Your task to perform on an android device: remove spam from my inbox in the gmail app Image 0: 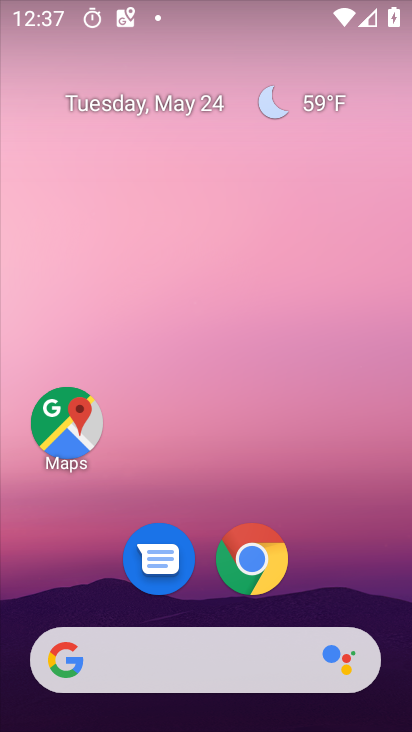
Step 0: drag from (394, 714) to (367, 151)
Your task to perform on an android device: remove spam from my inbox in the gmail app Image 1: 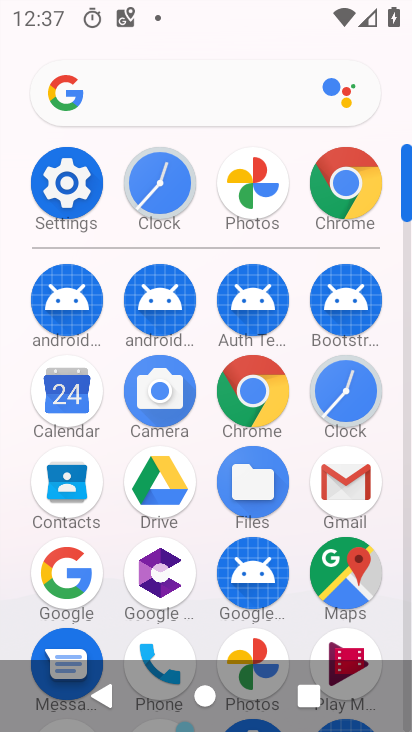
Step 1: click (331, 486)
Your task to perform on an android device: remove spam from my inbox in the gmail app Image 2: 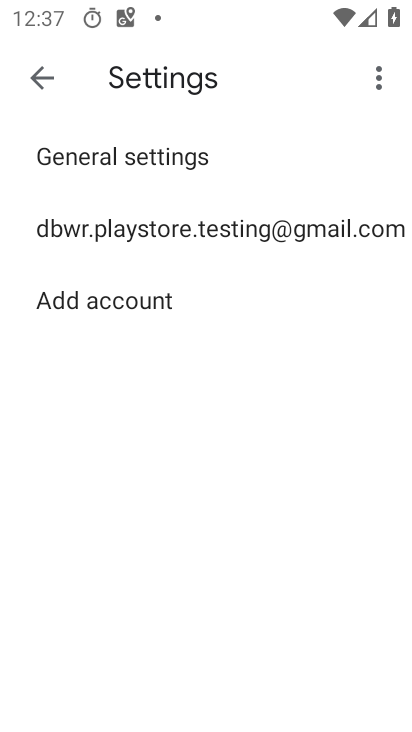
Step 2: click (42, 82)
Your task to perform on an android device: remove spam from my inbox in the gmail app Image 3: 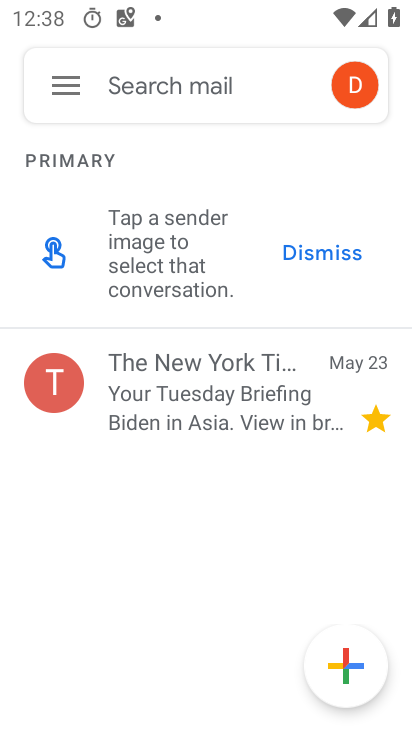
Step 3: click (62, 85)
Your task to perform on an android device: remove spam from my inbox in the gmail app Image 4: 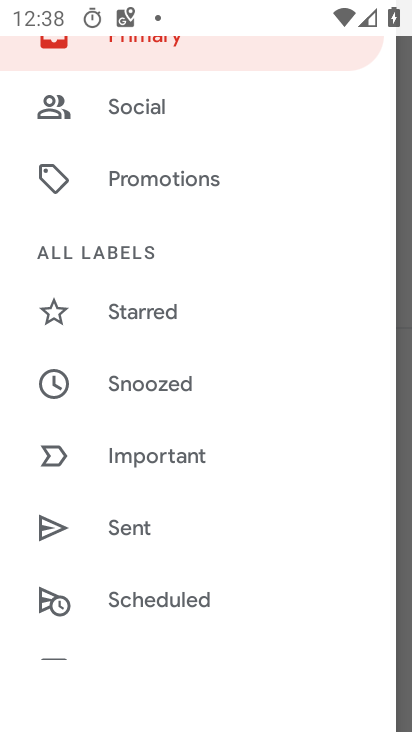
Step 4: drag from (272, 549) to (277, 312)
Your task to perform on an android device: remove spam from my inbox in the gmail app Image 5: 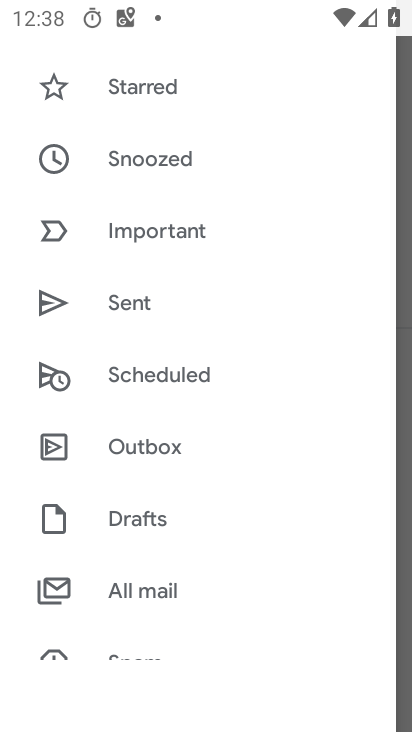
Step 5: drag from (236, 602) to (214, 361)
Your task to perform on an android device: remove spam from my inbox in the gmail app Image 6: 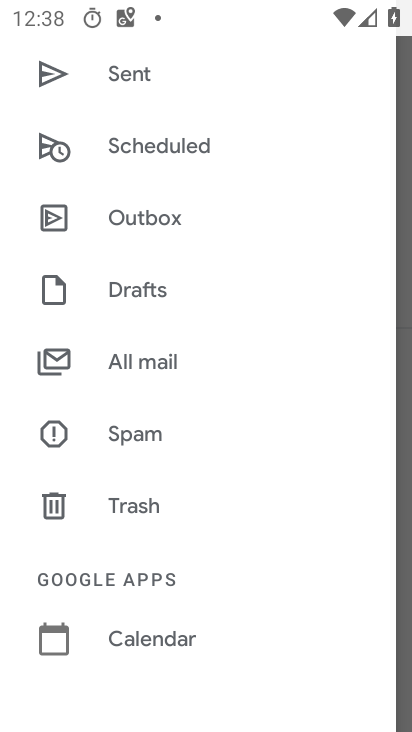
Step 6: click (119, 426)
Your task to perform on an android device: remove spam from my inbox in the gmail app Image 7: 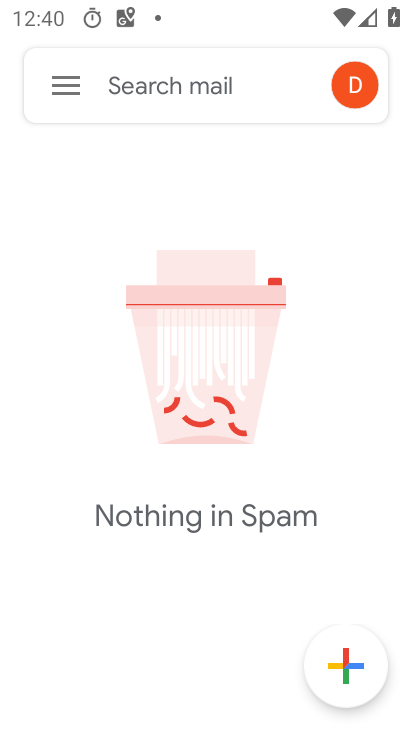
Step 7: task complete